Your task to perform on an android device: change the clock style Image 0: 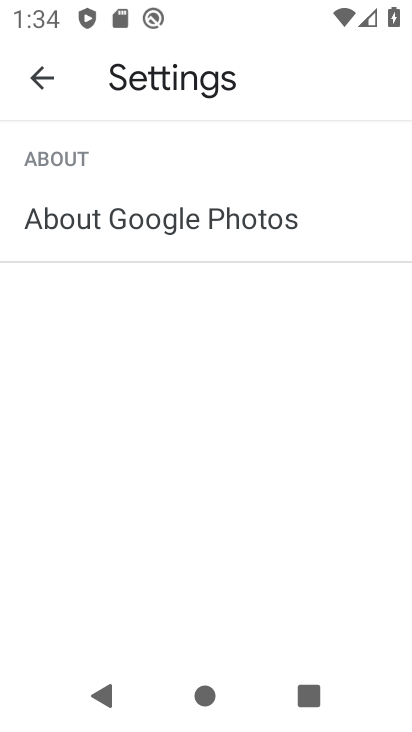
Step 0: press home button
Your task to perform on an android device: change the clock style Image 1: 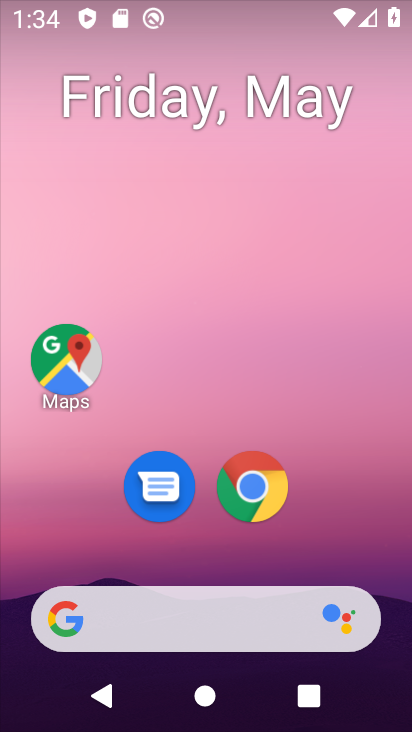
Step 1: drag from (380, 632) to (263, 35)
Your task to perform on an android device: change the clock style Image 2: 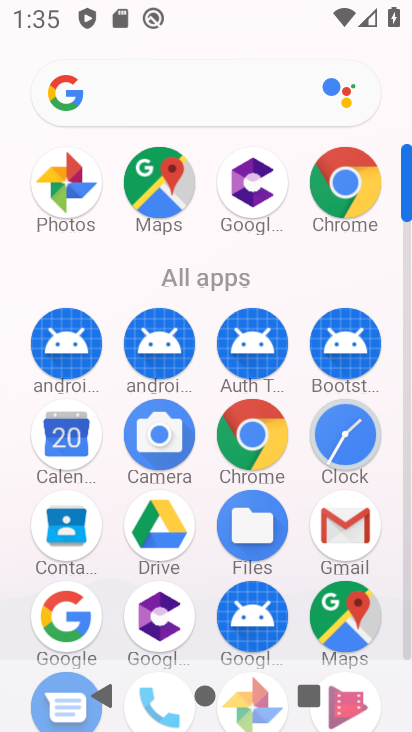
Step 2: click (347, 451)
Your task to perform on an android device: change the clock style Image 3: 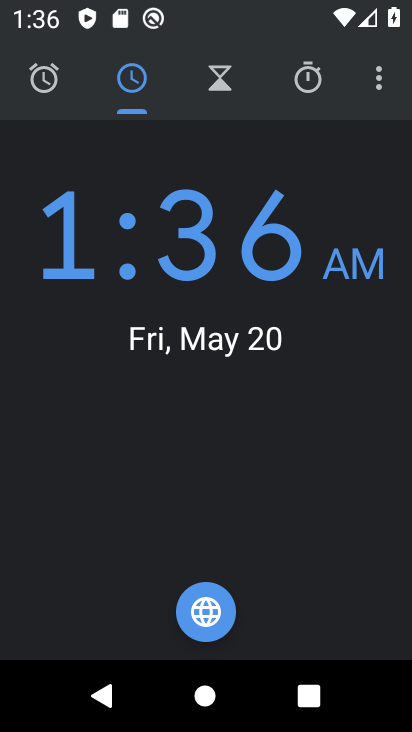
Step 3: click (379, 67)
Your task to perform on an android device: change the clock style Image 4: 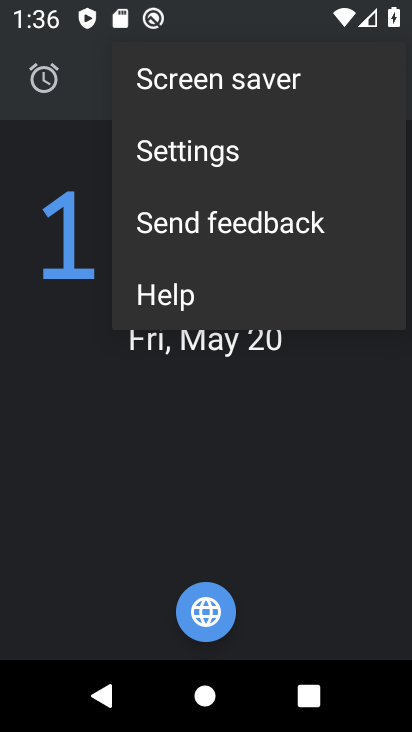
Step 4: click (253, 155)
Your task to perform on an android device: change the clock style Image 5: 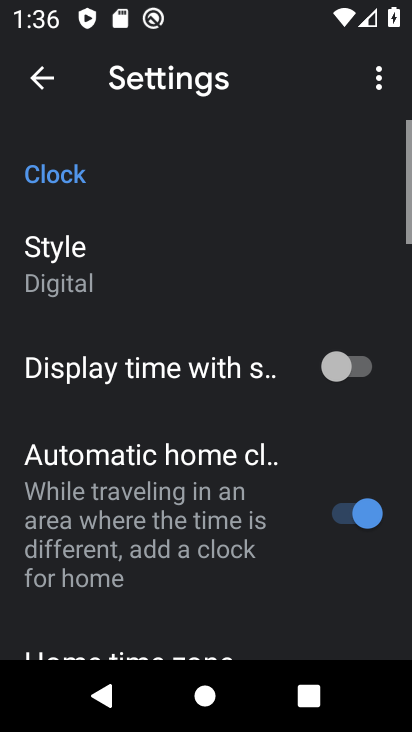
Step 5: click (160, 242)
Your task to perform on an android device: change the clock style Image 6: 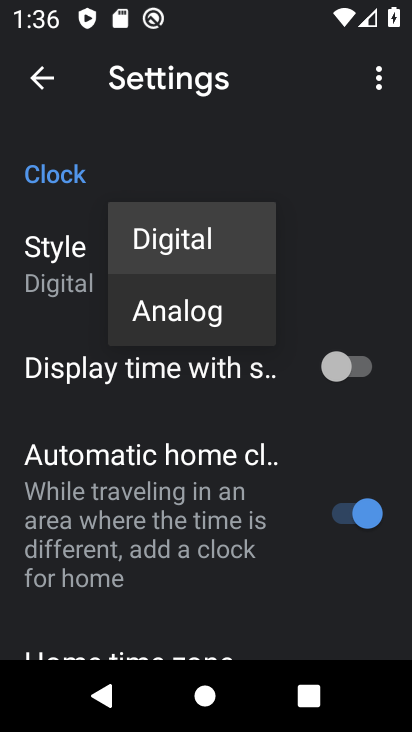
Step 6: click (167, 308)
Your task to perform on an android device: change the clock style Image 7: 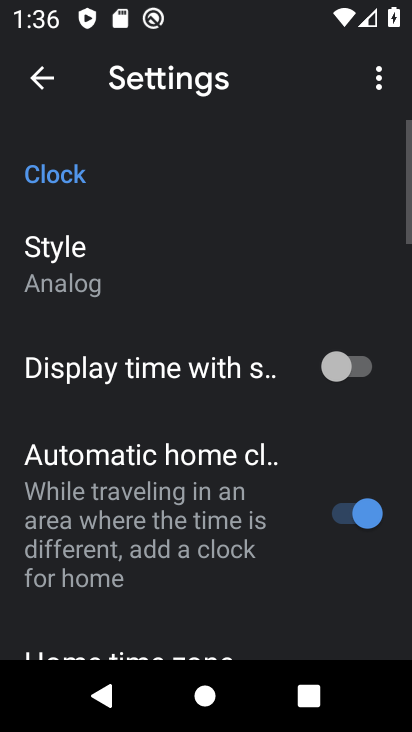
Step 7: task complete